Your task to perform on an android device: turn off priority inbox in the gmail app Image 0: 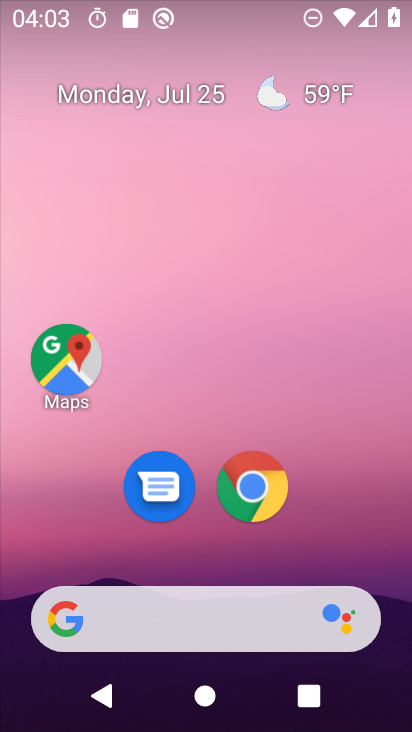
Step 0: drag from (151, 548) to (292, 0)
Your task to perform on an android device: turn off priority inbox in the gmail app Image 1: 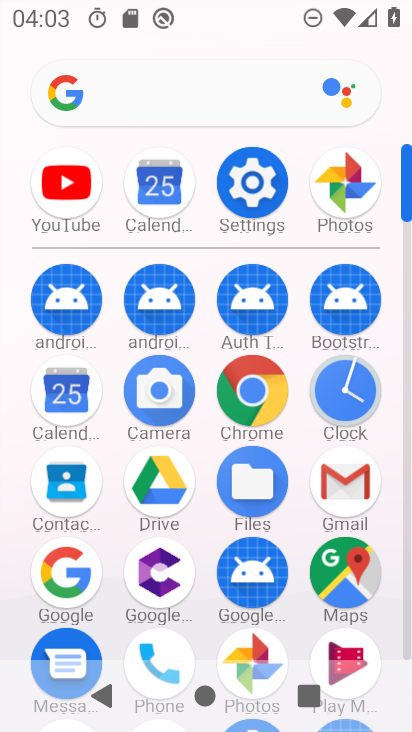
Step 1: click (336, 476)
Your task to perform on an android device: turn off priority inbox in the gmail app Image 2: 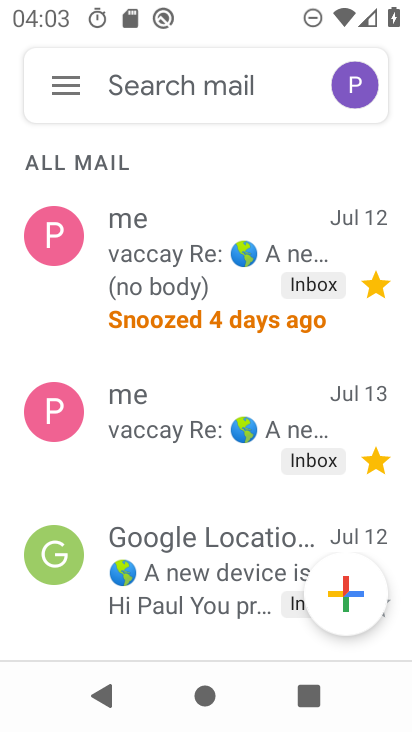
Step 2: click (69, 86)
Your task to perform on an android device: turn off priority inbox in the gmail app Image 3: 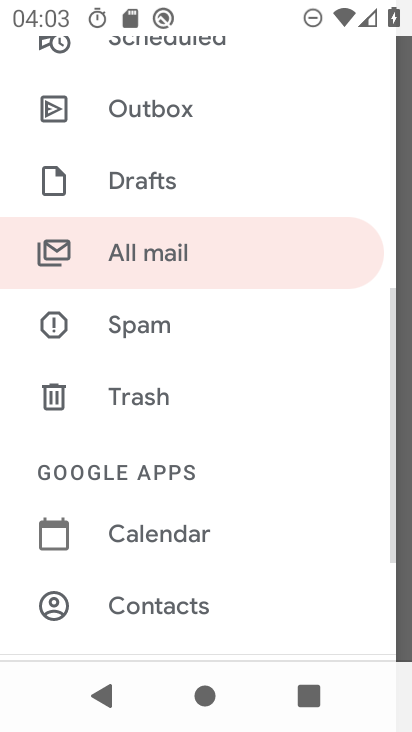
Step 3: drag from (179, 613) to (230, 27)
Your task to perform on an android device: turn off priority inbox in the gmail app Image 4: 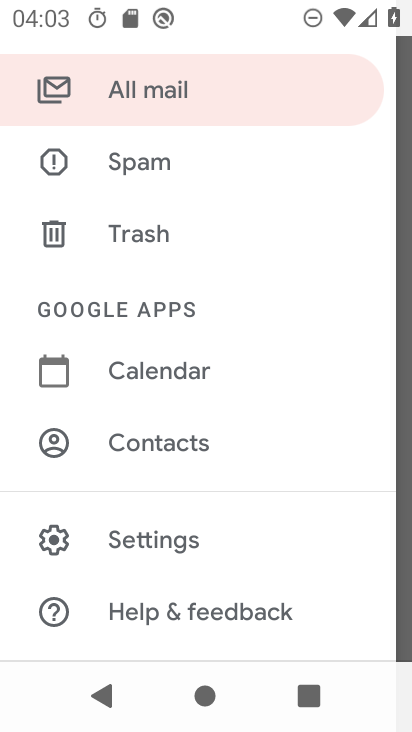
Step 4: click (162, 537)
Your task to perform on an android device: turn off priority inbox in the gmail app Image 5: 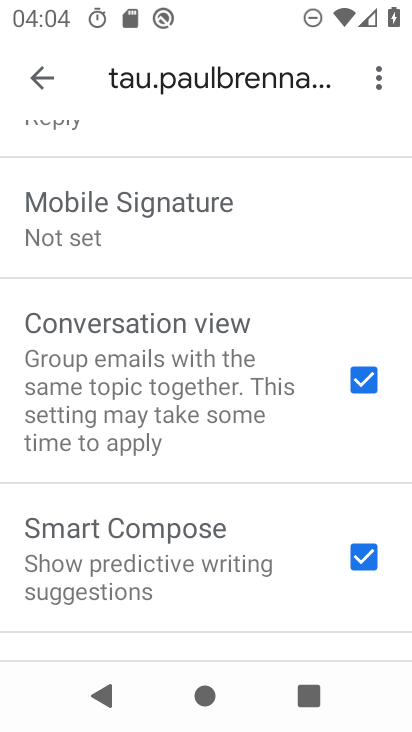
Step 5: drag from (278, 184) to (235, 643)
Your task to perform on an android device: turn off priority inbox in the gmail app Image 6: 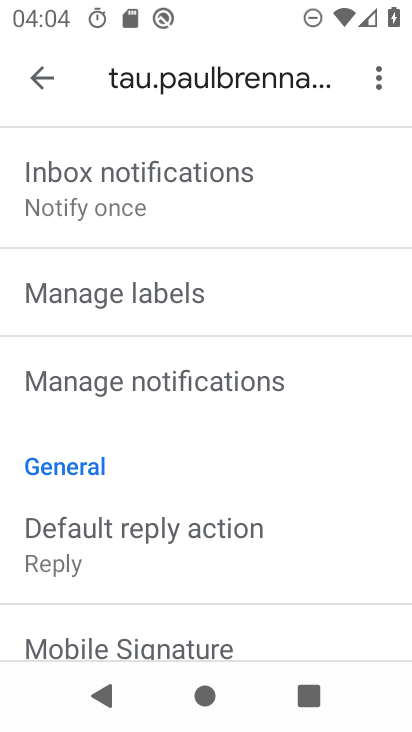
Step 6: drag from (162, 159) to (153, 687)
Your task to perform on an android device: turn off priority inbox in the gmail app Image 7: 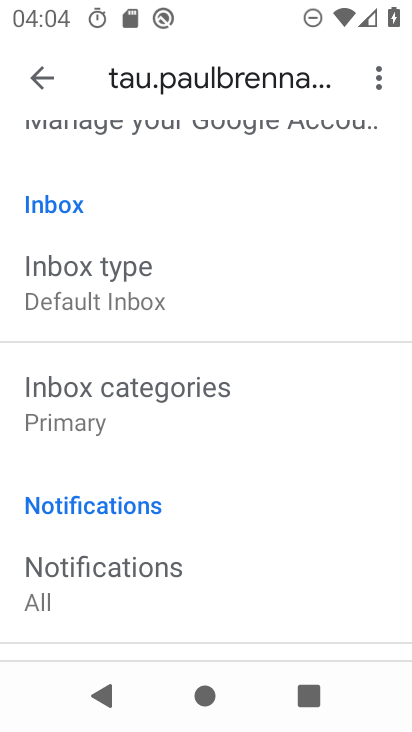
Step 7: click (97, 274)
Your task to perform on an android device: turn off priority inbox in the gmail app Image 8: 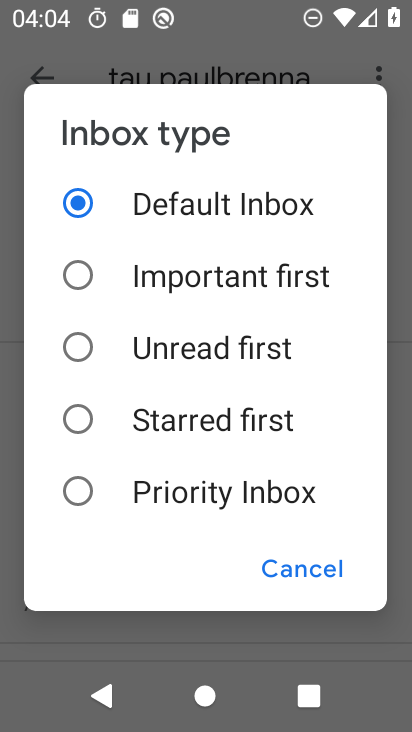
Step 8: task complete